Your task to perform on an android device: Open display settings Image 0: 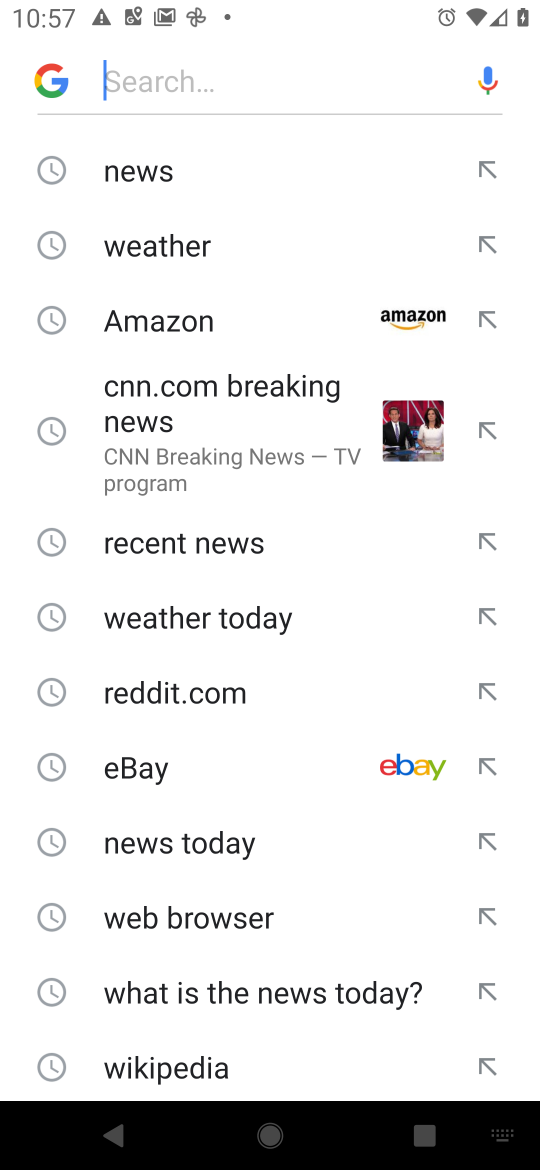
Step 0: press home button
Your task to perform on an android device: Open display settings Image 1: 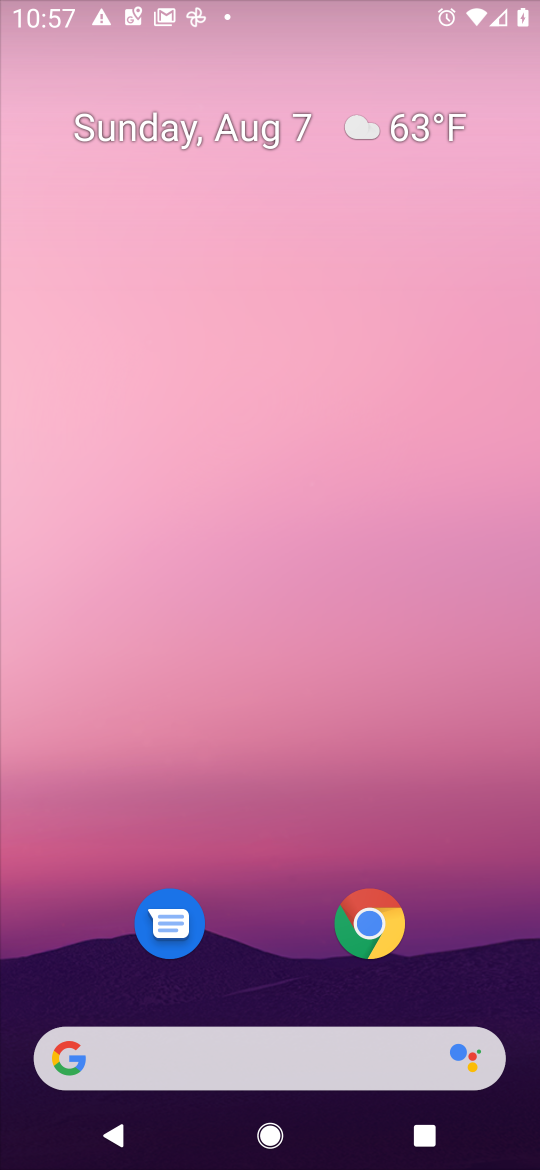
Step 1: drag from (506, 971) to (239, 39)
Your task to perform on an android device: Open display settings Image 2: 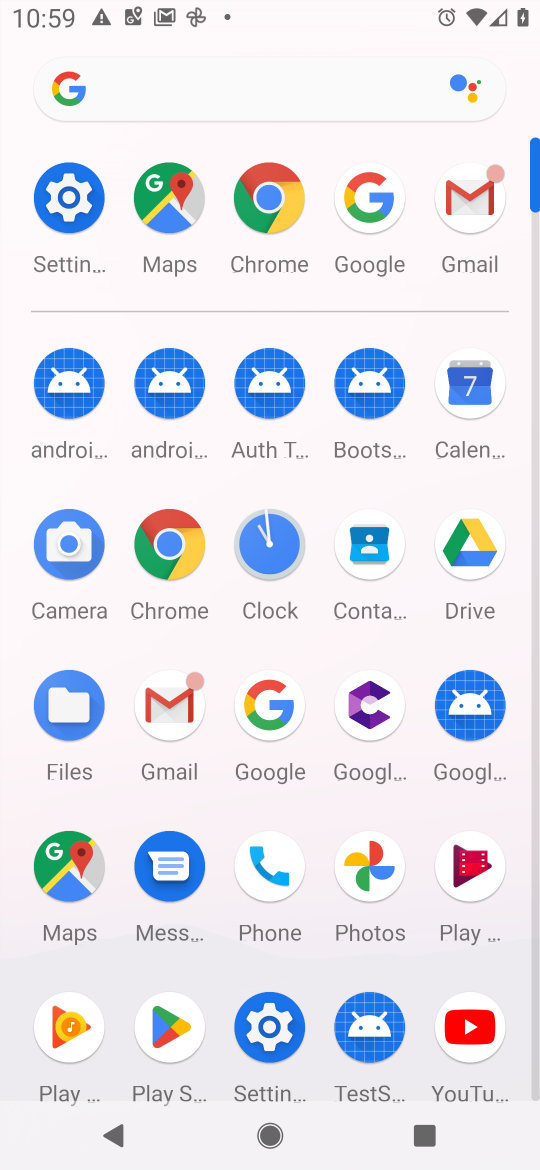
Step 2: click (293, 1037)
Your task to perform on an android device: Open display settings Image 3: 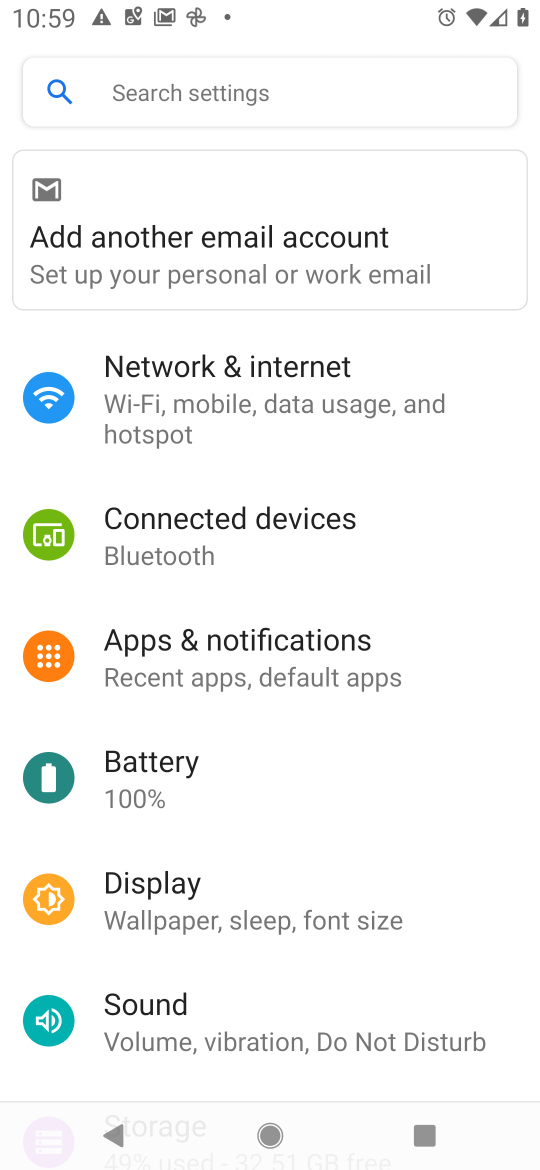
Step 3: click (127, 874)
Your task to perform on an android device: Open display settings Image 4: 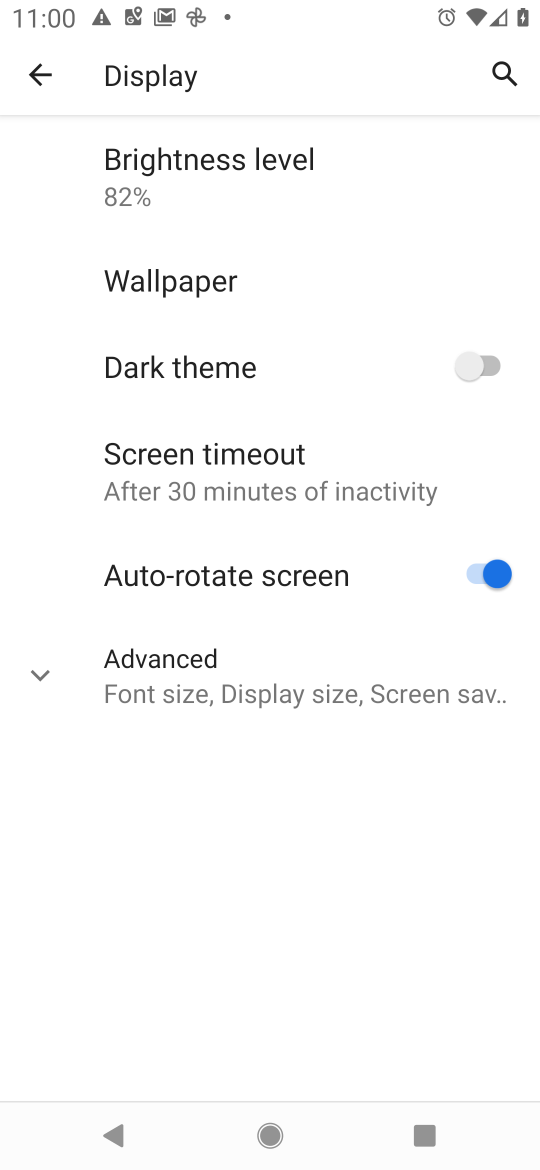
Step 4: task complete